Your task to perform on an android device: Search for sushi restaurants on Maps Image 0: 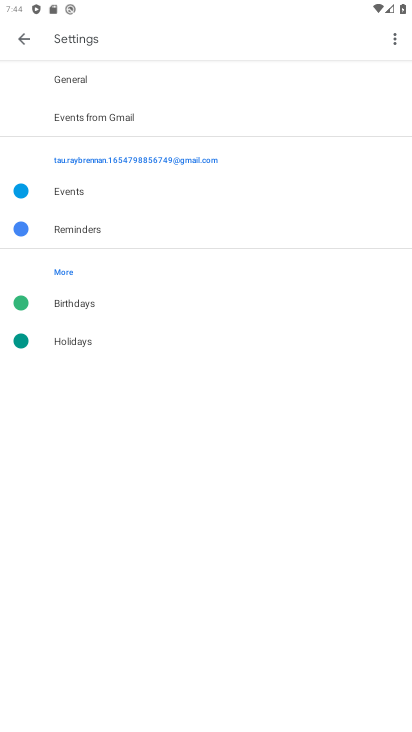
Step 0: drag from (233, 500) to (248, 246)
Your task to perform on an android device: Search for sushi restaurants on Maps Image 1: 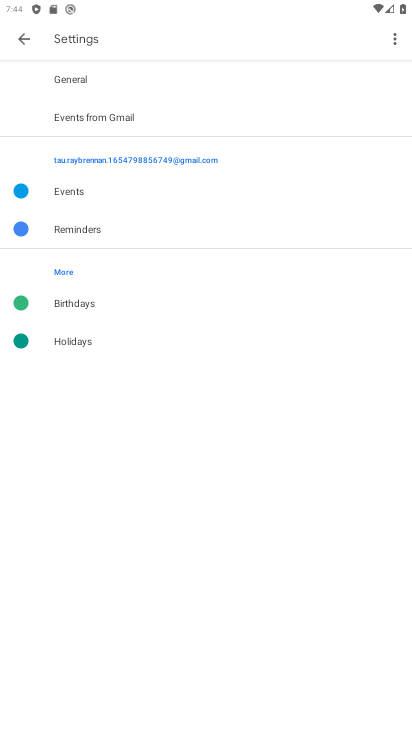
Step 1: press home button
Your task to perform on an android device: Search for sushi restaurants on Maps Image 2: 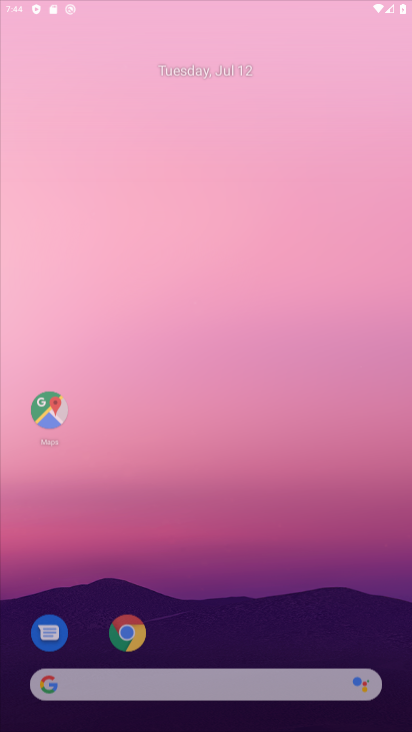
Step 2: drag from (228, 612) to (220, 297)
Your task to perform on an android device: Search for sushi restaurants on Maps Image 3: 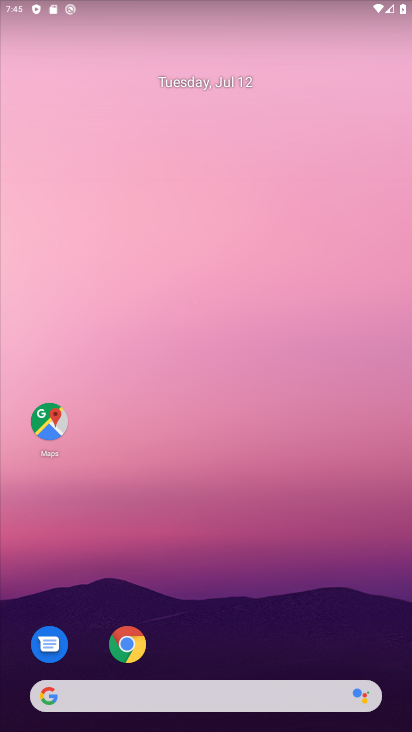
Step 3: drag from (206, 585) to (195, 172)
Your task to perform on an android device: Search for sushi restaurants on Maps Image 4: 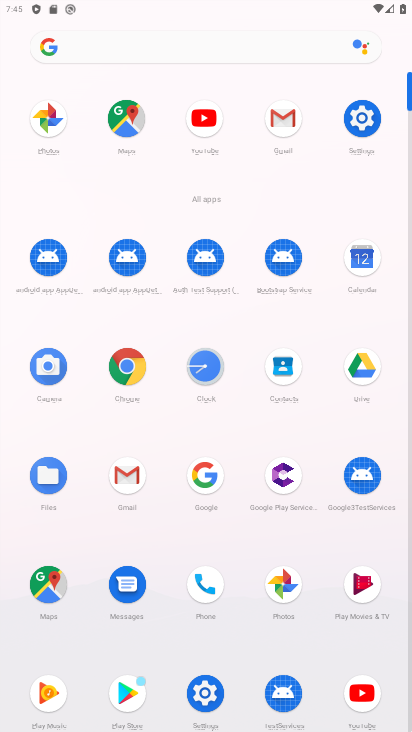
Step 4: click (55, 607)
Your task to perform on an android device: Search for sushi restaurants on Maps Image 5: 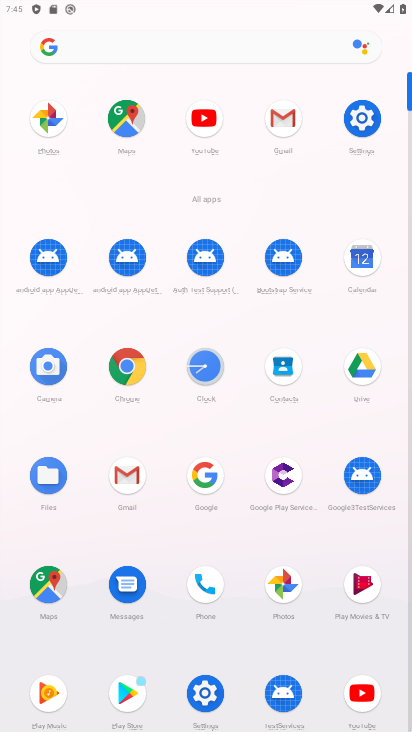
Step 5: click (55, 613)
Your task to perform on an android device: Search for sushi restaurants on Maps Image 6: 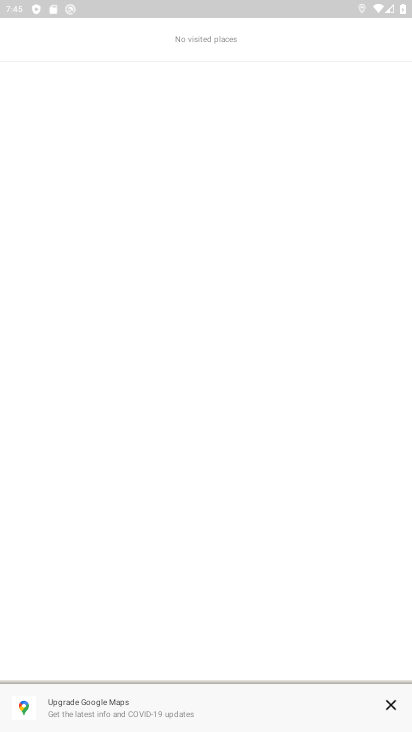
Step 6: press back button
Your task to perform on an android device: Search for sushi restaurants on Maps Image 7: 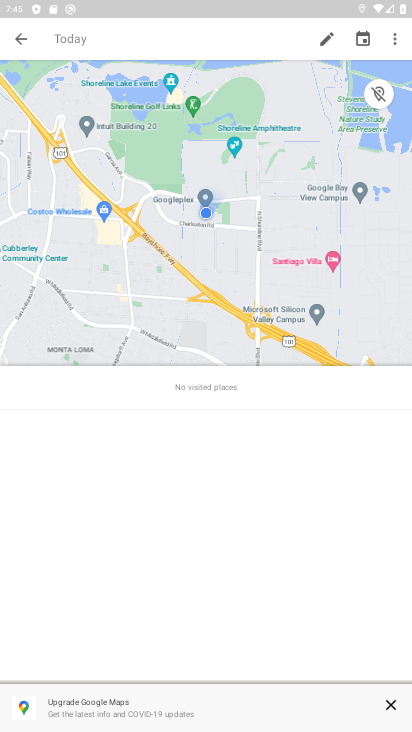
Step 7: click (23, 30)
Your task to perform on an android device: Search for sushi restaurants on Maps Image 8: 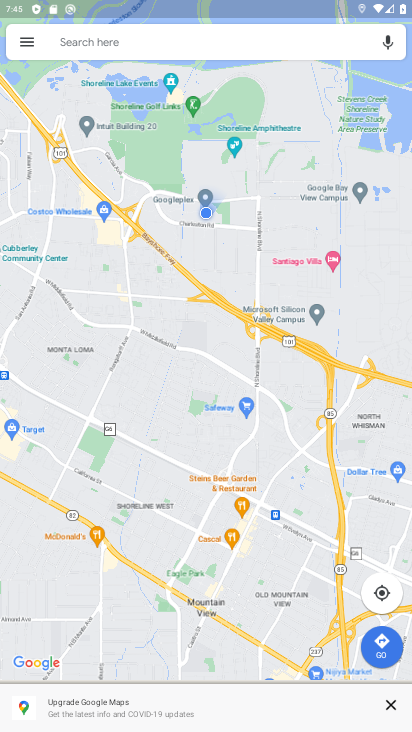
Step 8: click (147, 41)
Your task to perform on an android device: Search for sushi restaurants on Maps Image 9: 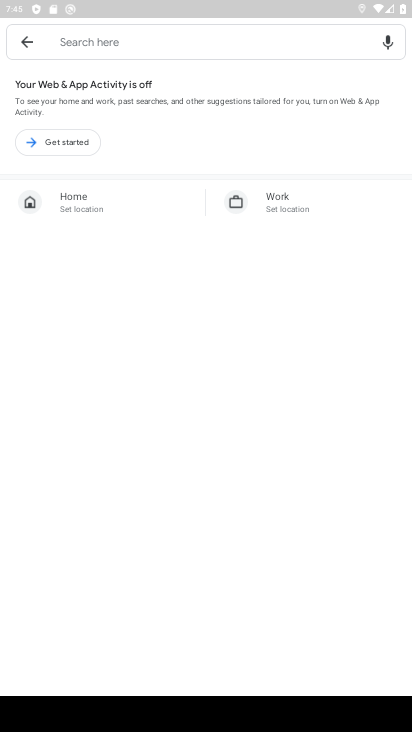
Step 9: click (112, 41)
Your task to perform on an android device: Search for sushi restaurants on Maps Image 10: 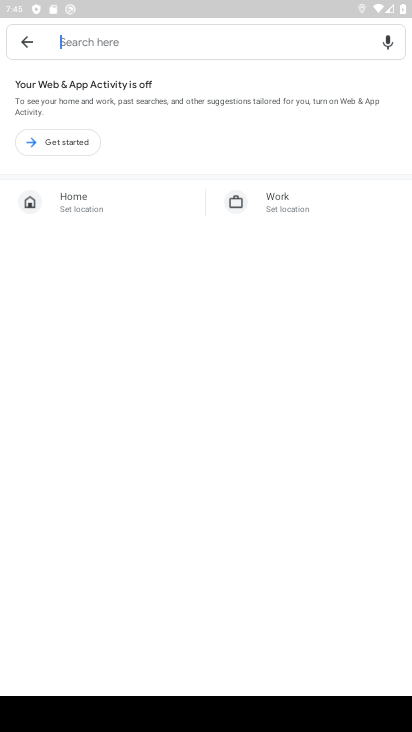
Step 10: type "sushi restaurants"
Your task to perform on an android device: Search for sushi restaurants on Maps Image 11: 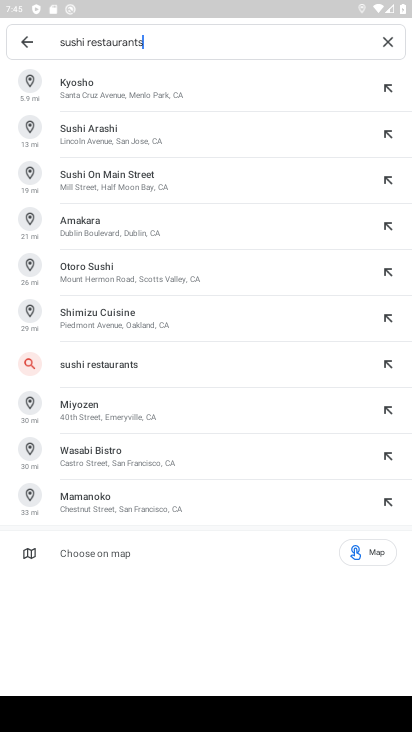
Step 11: click (89, 356)
Your task to perform on an android device: Search for sushi restaurants on Maps Image 12: 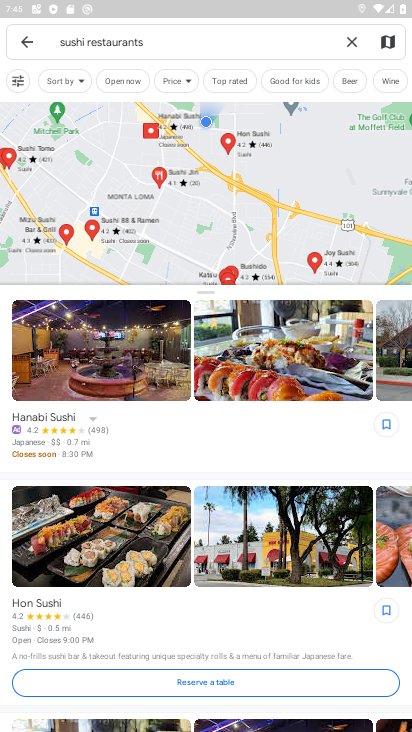
Step 12: task complete